Your task to perform on an android device: turn off location history Image 0: 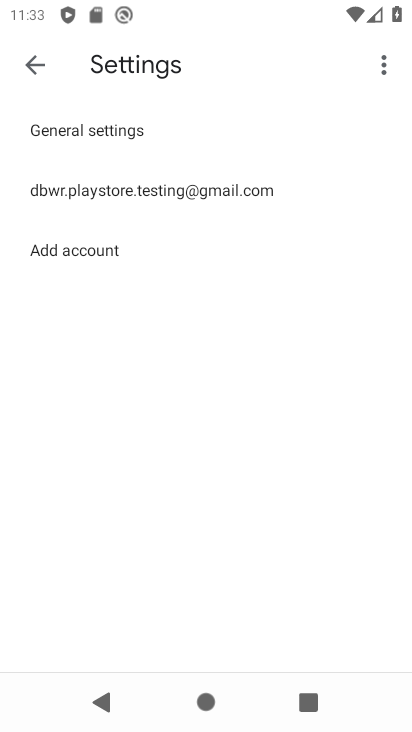
Step 0: press back button
Your task to perform on an android device: turn off location history Image 1: 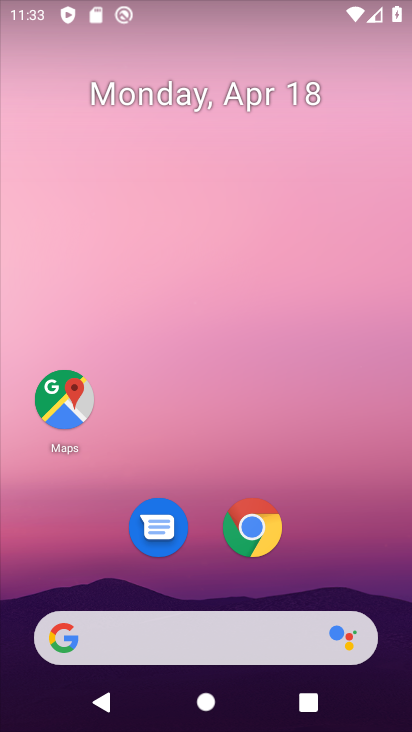
Step 1: drag from (349, 507) to (399, 44)
Your task to perform on an android device: turn off location history Image 2: 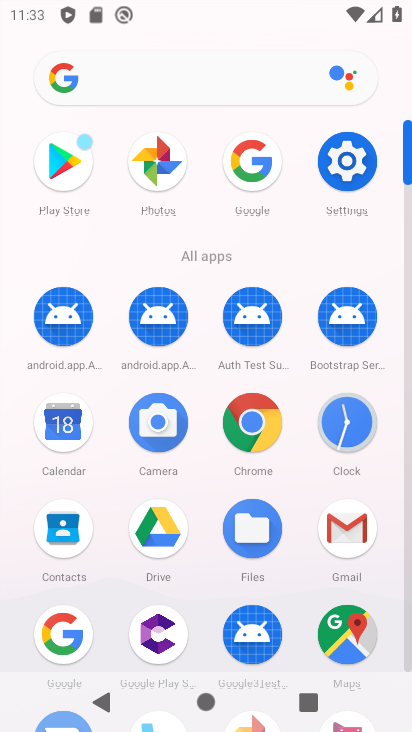
Step 2: click (344, 163)
Your task to perform on an android device: turn off location history Image 3: 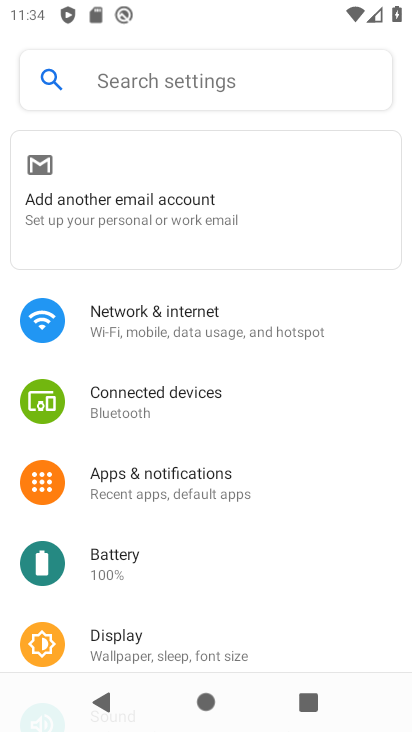
Step 3: drag from (223, 584) to (176, 385)
Your task to perform on an android device: turn off location history Image 4: 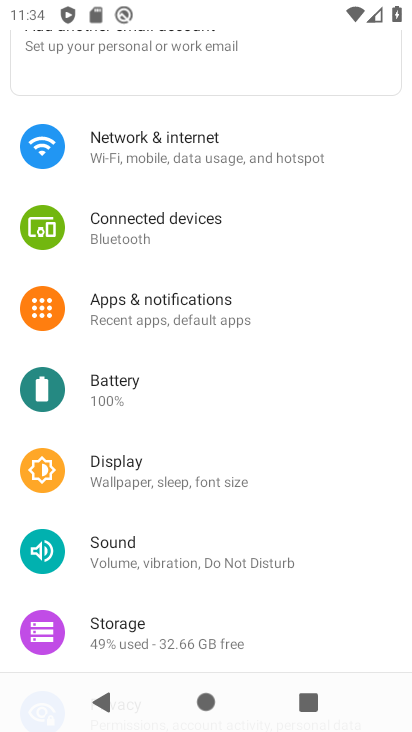
Step 4: drag from (168, 563) to (227, 299)
Your task to perform on an android device: turn off location history Image 5: 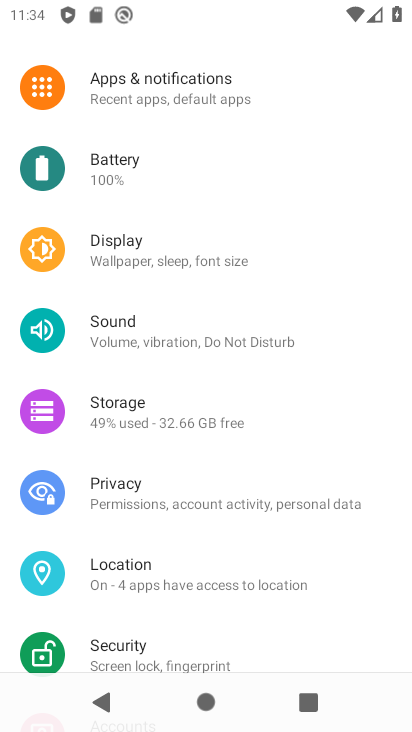
Step 5: click (175, 569)
Your task to perform on an android device: turn off location history Image 6: 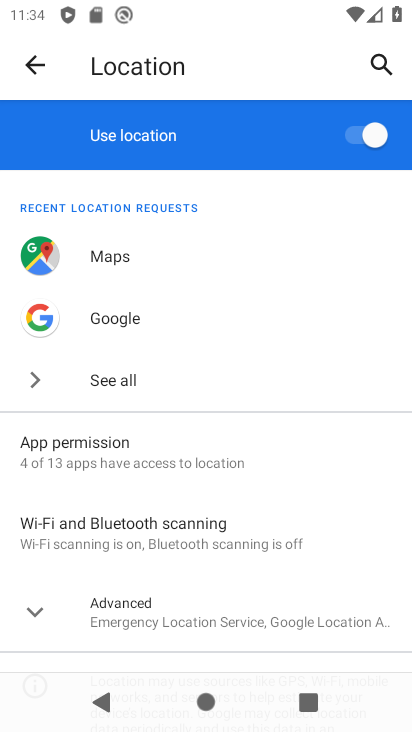
Step 6: click (172, 605)
Your task to perform on an android device: turn off location history Image 7: 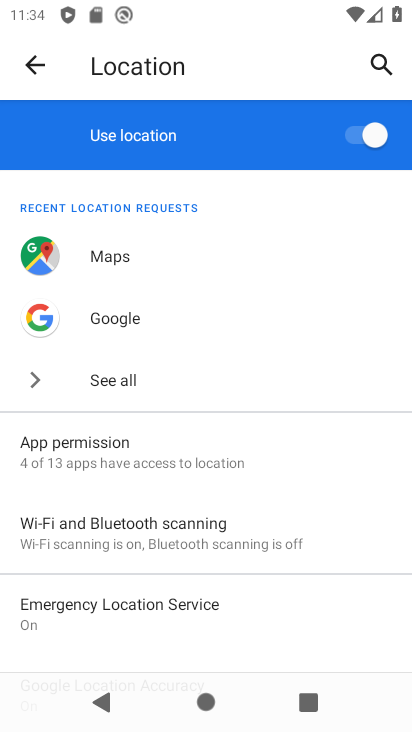
Step 7: drag from (169, 591) to (239, 351)
Your task to perform on an android device: turn off location history Image 8: 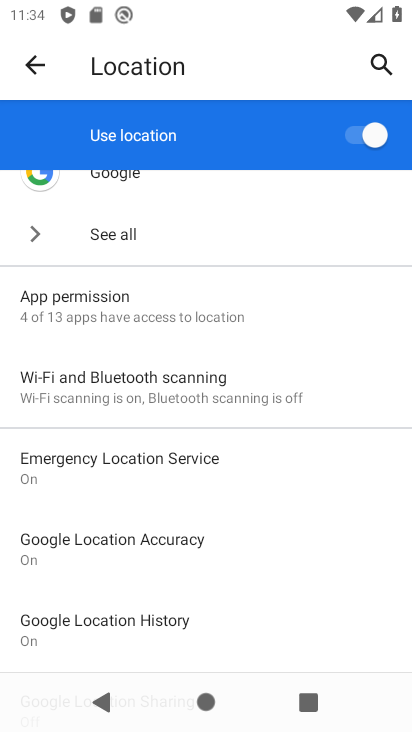
Step 8: click (207, 560)
Your task to perform on an android device: turn off location history Image 9: 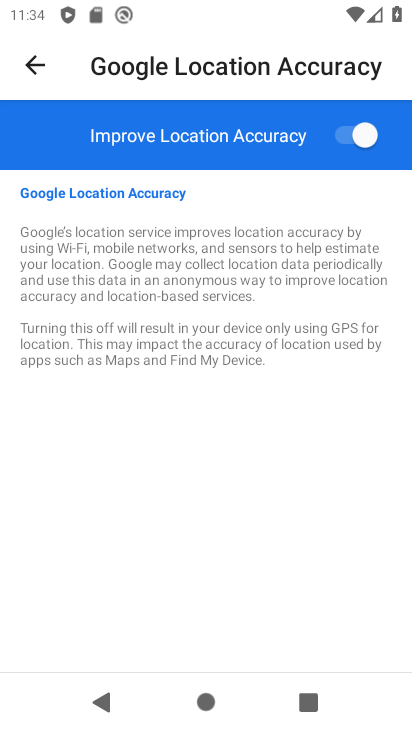
Step 9: click (359, 132)
Your task to perform on an android device: turn off location history Image 10: 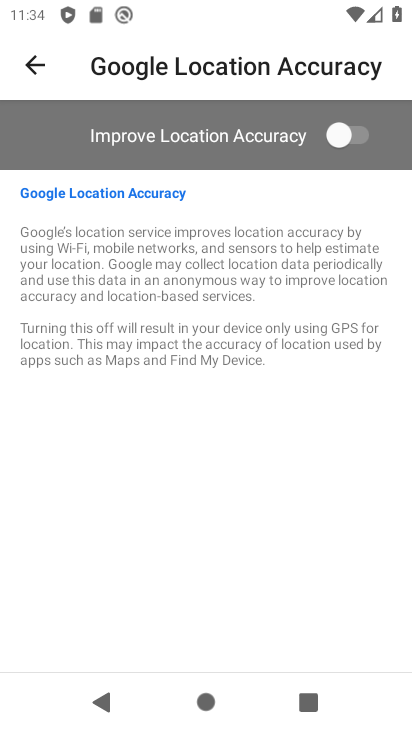
Step 10: task complete